Your task to perform on an android device: turn pop-ups off in chrome Image 0: 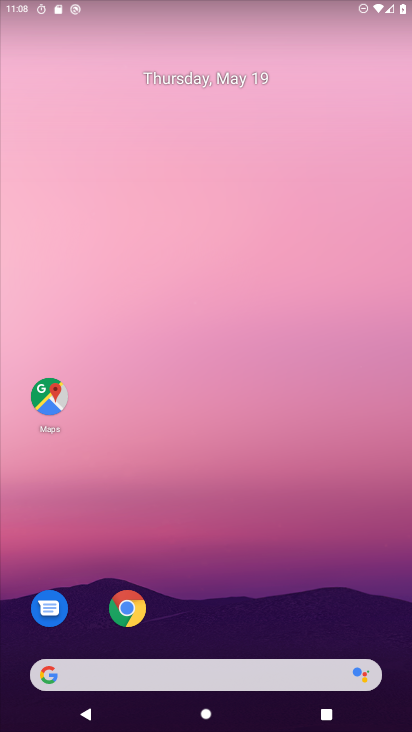
Step 0: click (135, 607)
Your task to perform on an android device: turn pop-ups off in chrome Image 1: 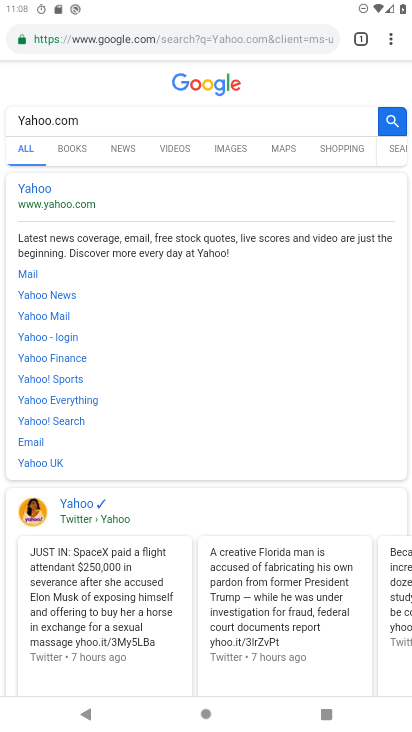
Step 1: click (382, 38)
Your task to perform on an android device: turn pop-ups off in chrome Image 2: 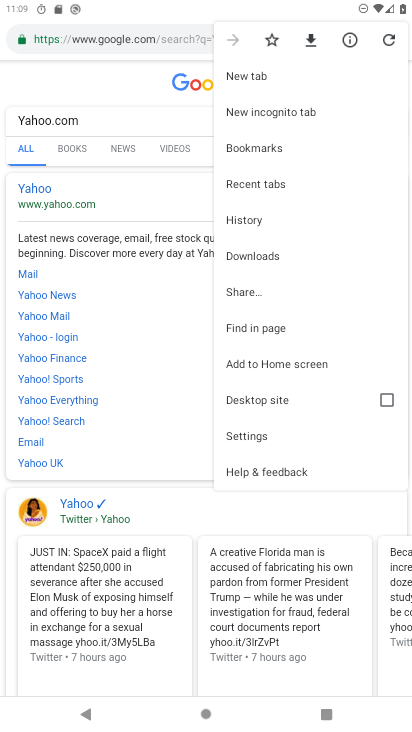
Step 2: click (241, 428)
Your task to perform on an android device: turn pop-ups off in chrome Image 3: 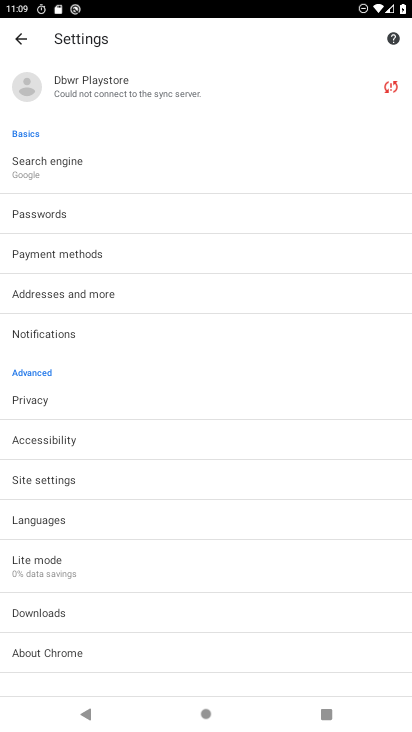
Step 3: click (40, 483)
Your task to perform on an android device: turn pop-ups off in chrome Image 4: 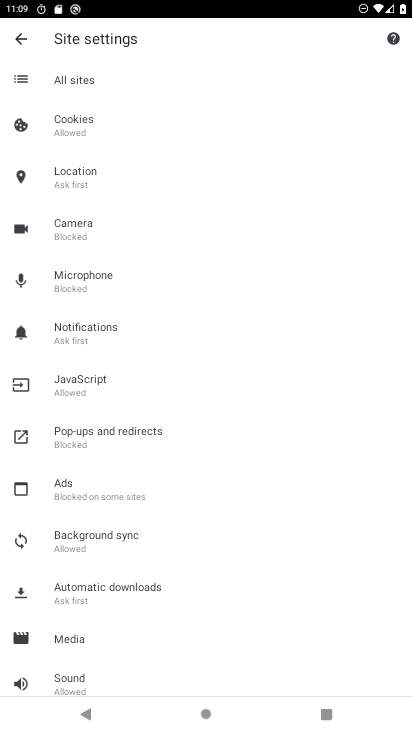
Step 4: click (123, 437)
Your task to perform on an android device: turn pop-ups off in chrome Image 5: 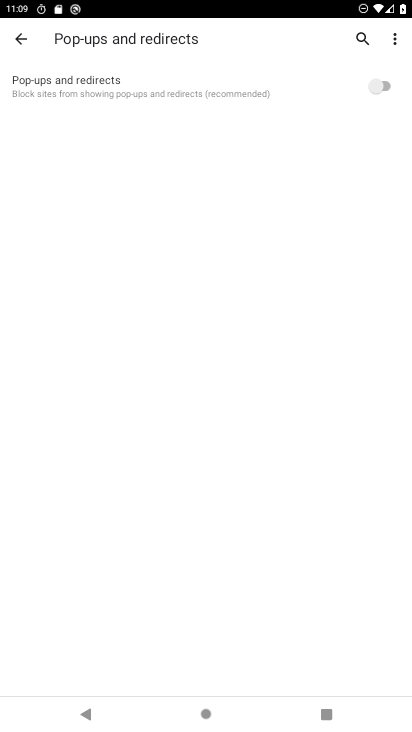
Step 5: task complete